Your task to perform on an android device: open app "Pandora - Music & Podcasts" Image 0: 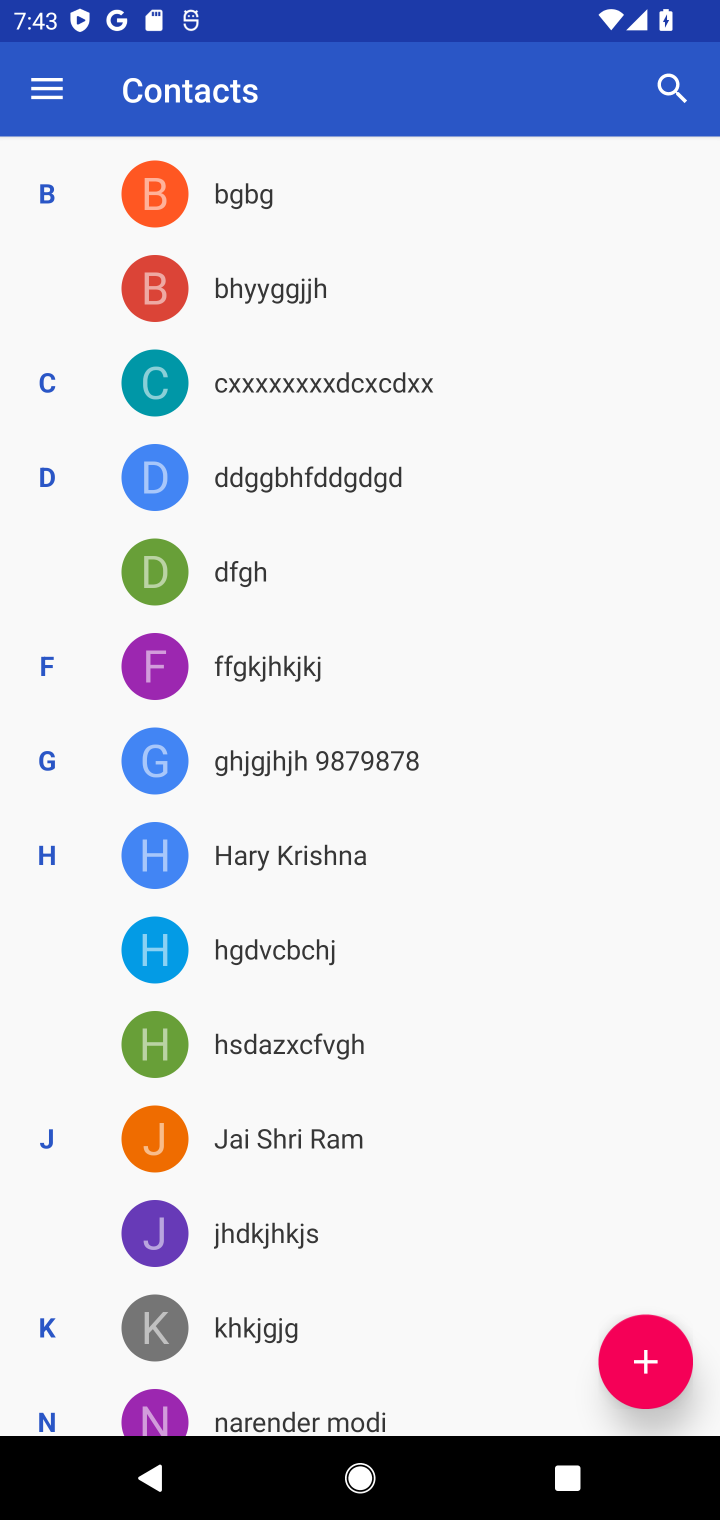
Step 0: press back button
Your task to perform on an android device: open app "Pandora - Music & Podcasts" Image 1: 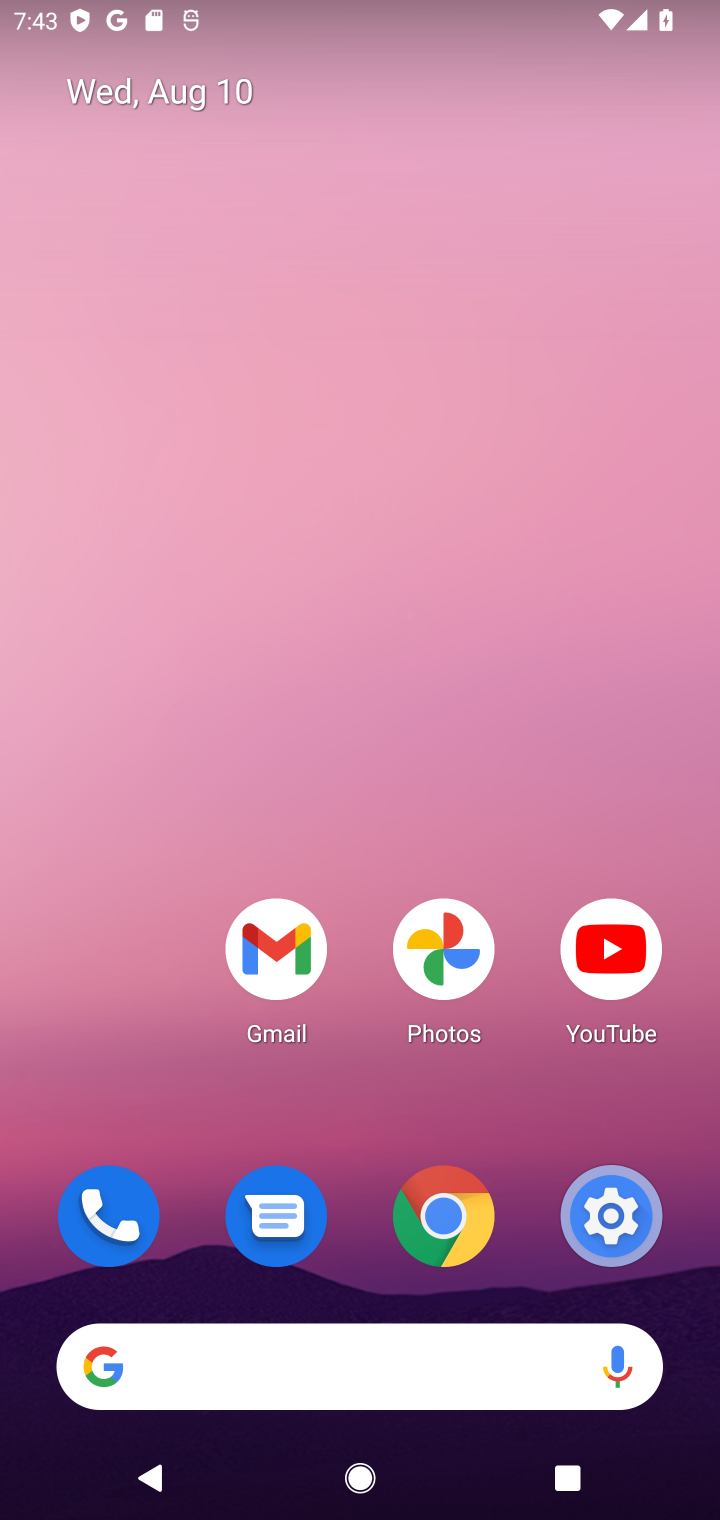
Step 1: drag from (398, 964) to (439, 27)
Your task to perform on an android device: open app "Pandora - Music & Podcasts" Image 2: 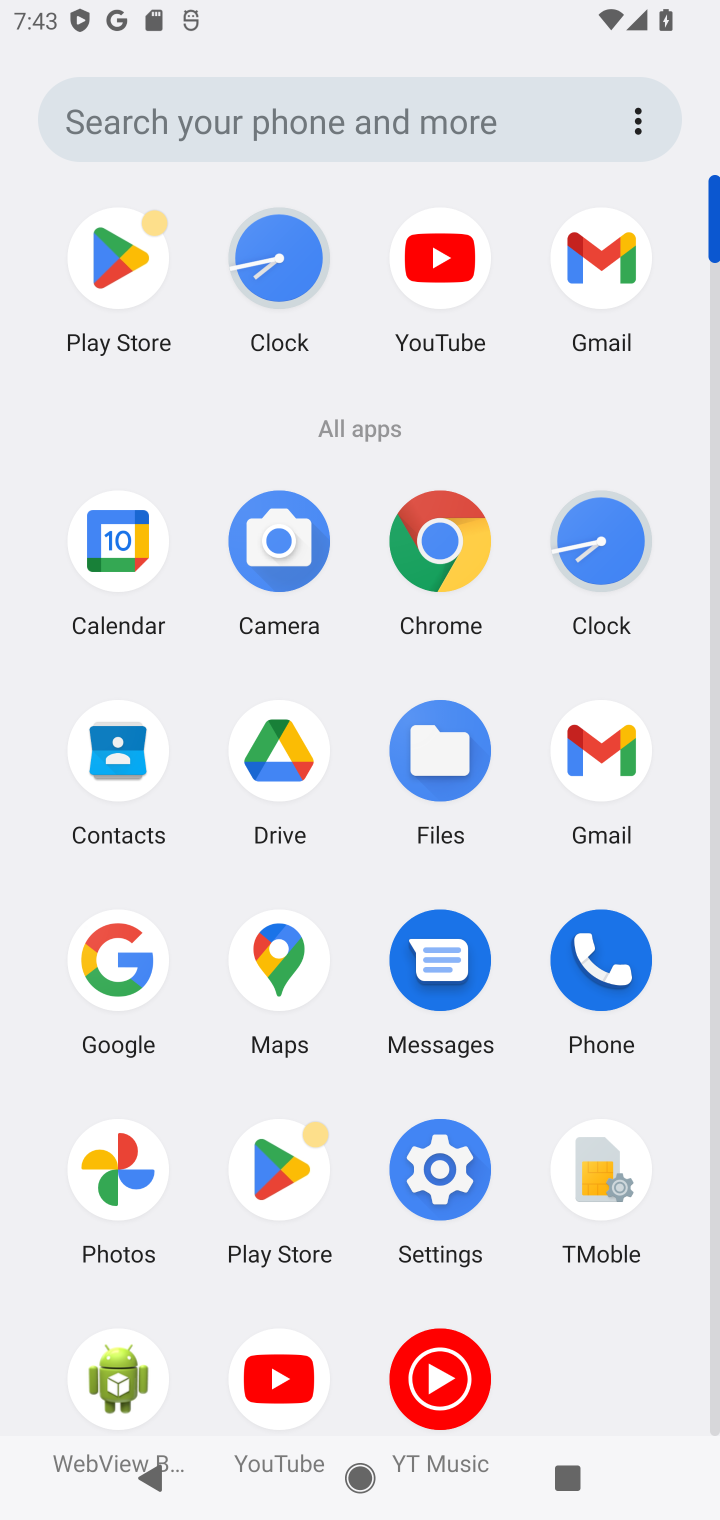
Step 2: click (114, 277)
Your task to perform on an android device: open app "Pandora - Music & Podcasts" Image 3: 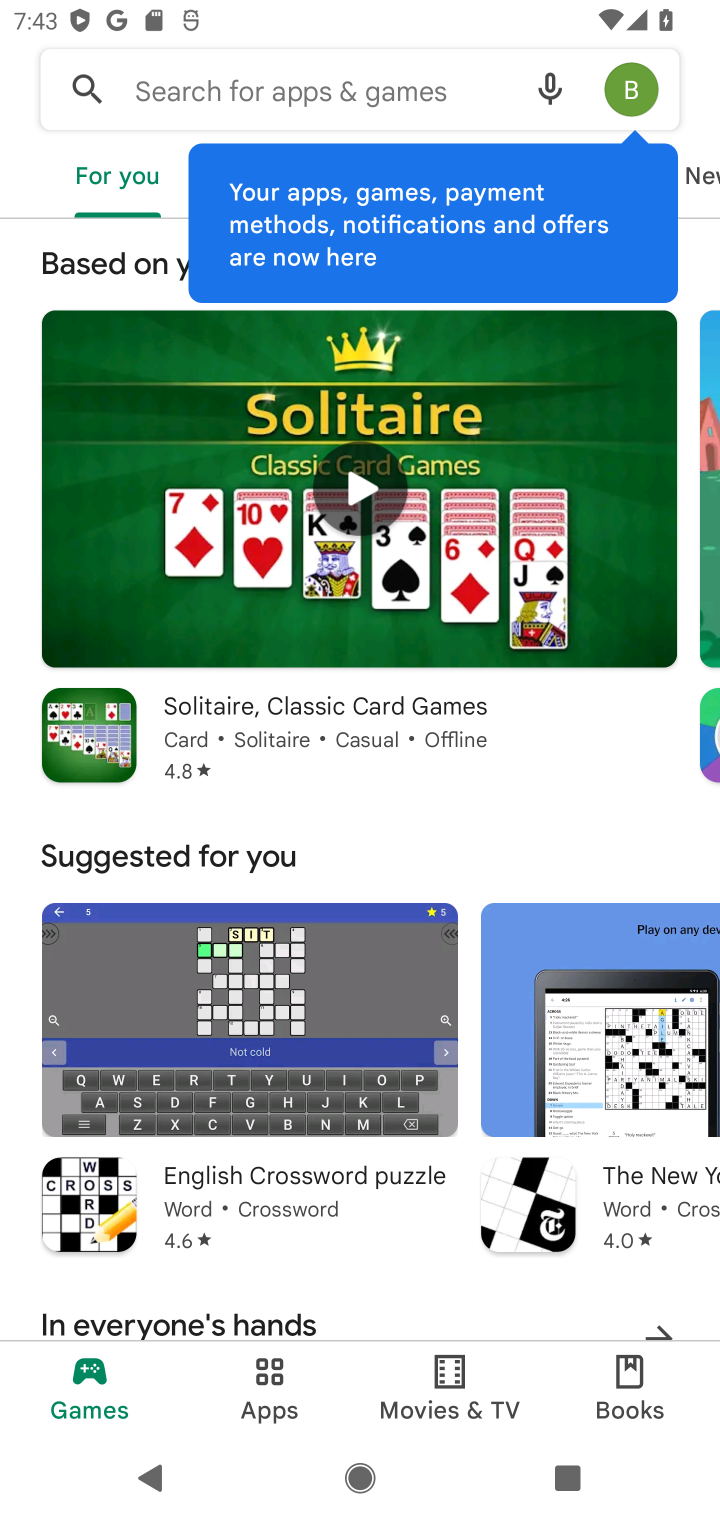
Step 3: click (345, 85)
Your task to perform on an android device: open app "Pandora - Music & Podcasts" Image 4: 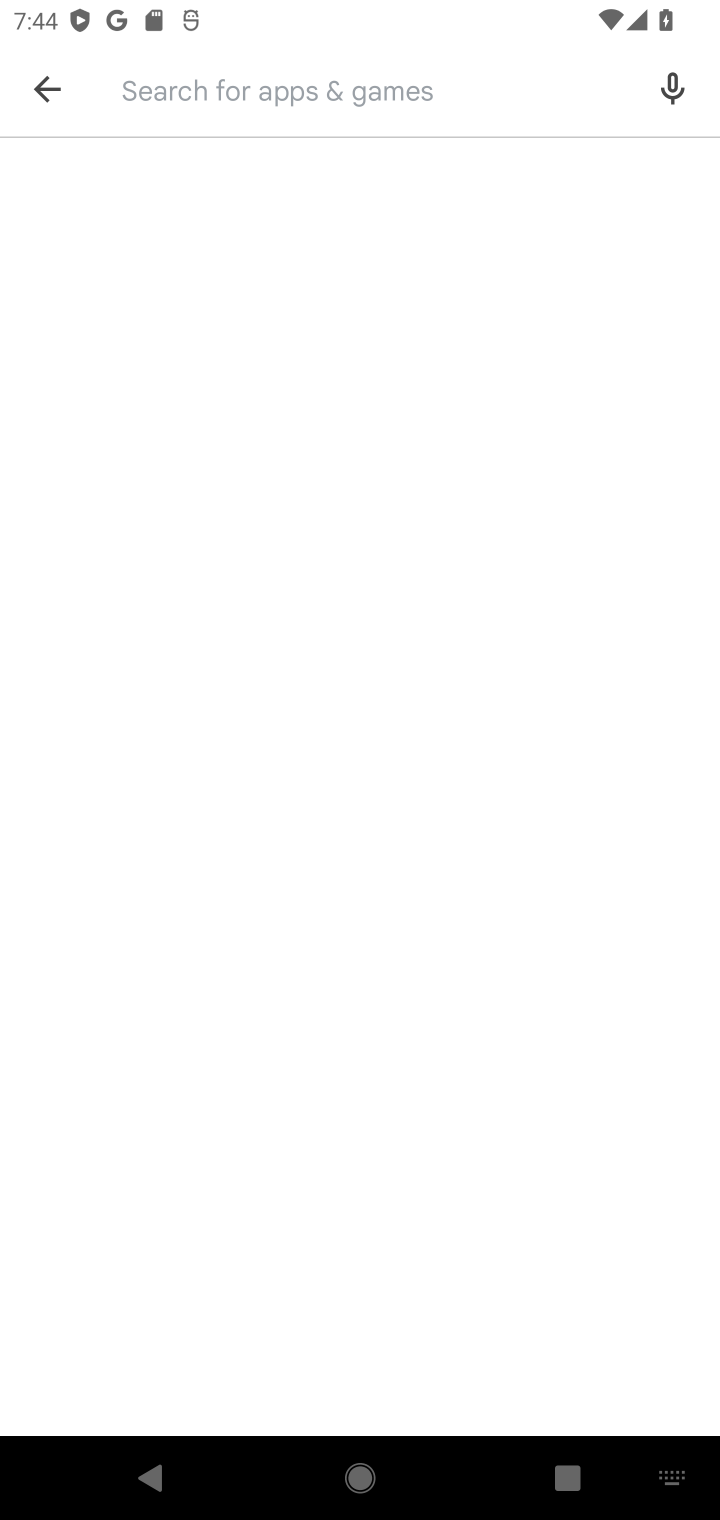
Step 4: type "pandora"
Your task to perform on an android device: open app "Pandora - Music & Podcasts" Image 5: 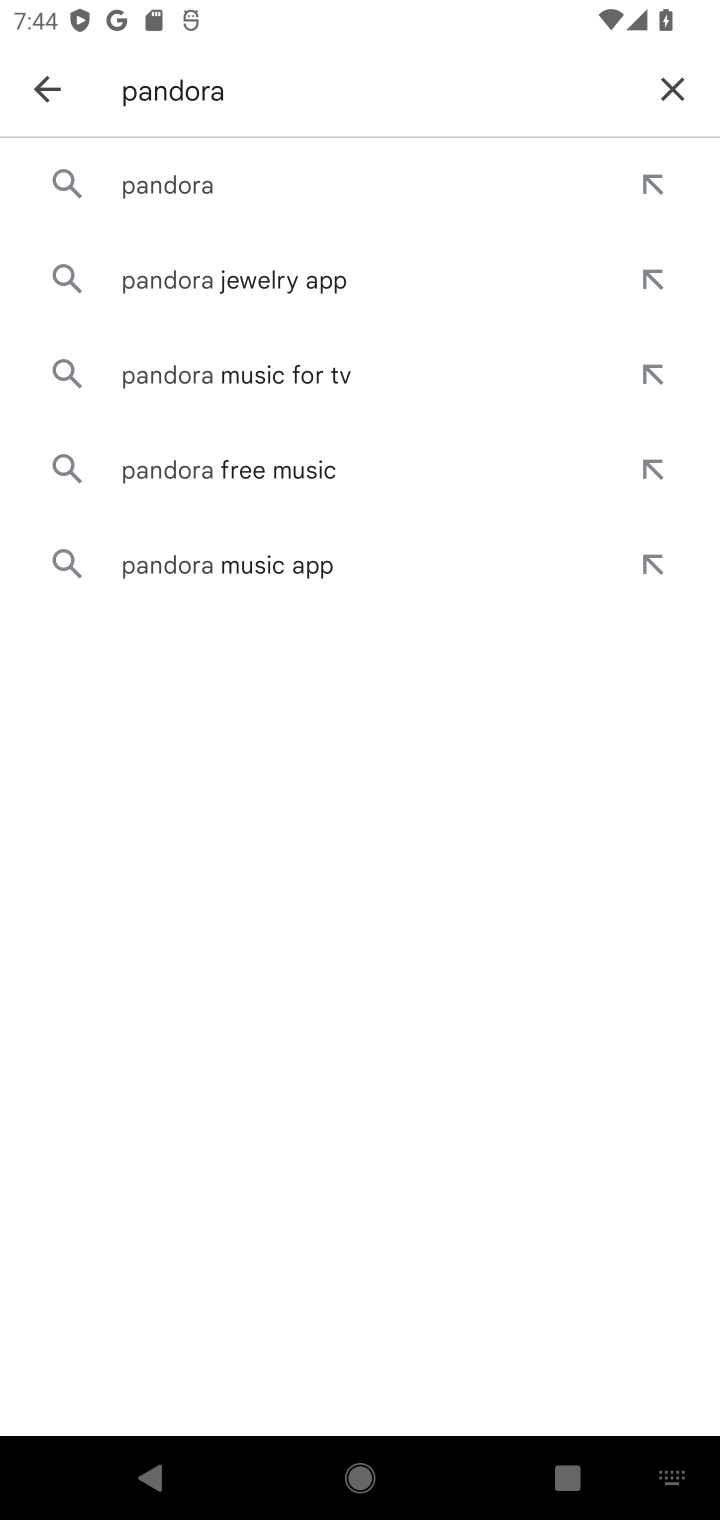
Step 5: click (233, 184)
Your task to perform on an android device: open app "Pandora - Music & Podcasts" Image 6: 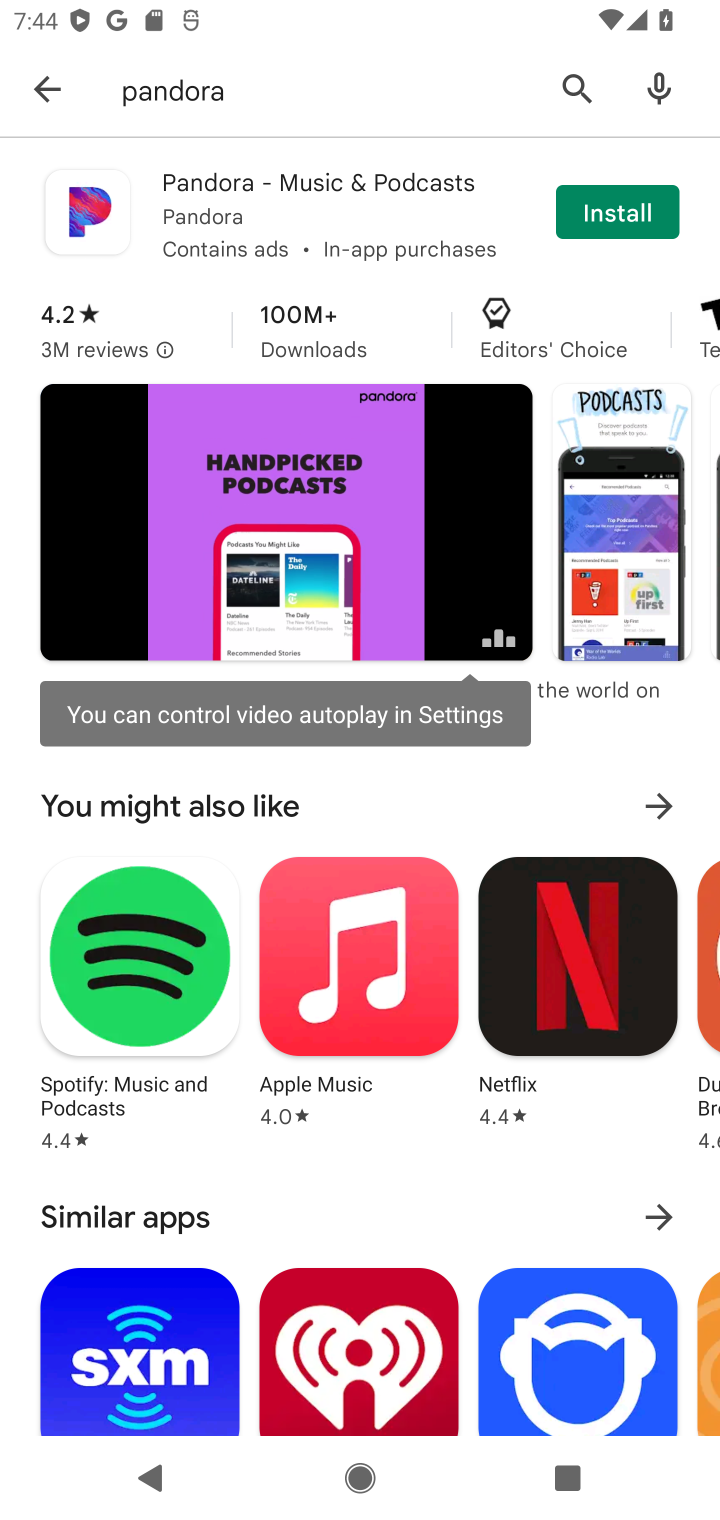
Step 6: task complete